Your task to perform on an android device: Search for the most popular coffee table on Crate & Barrel Image 0: 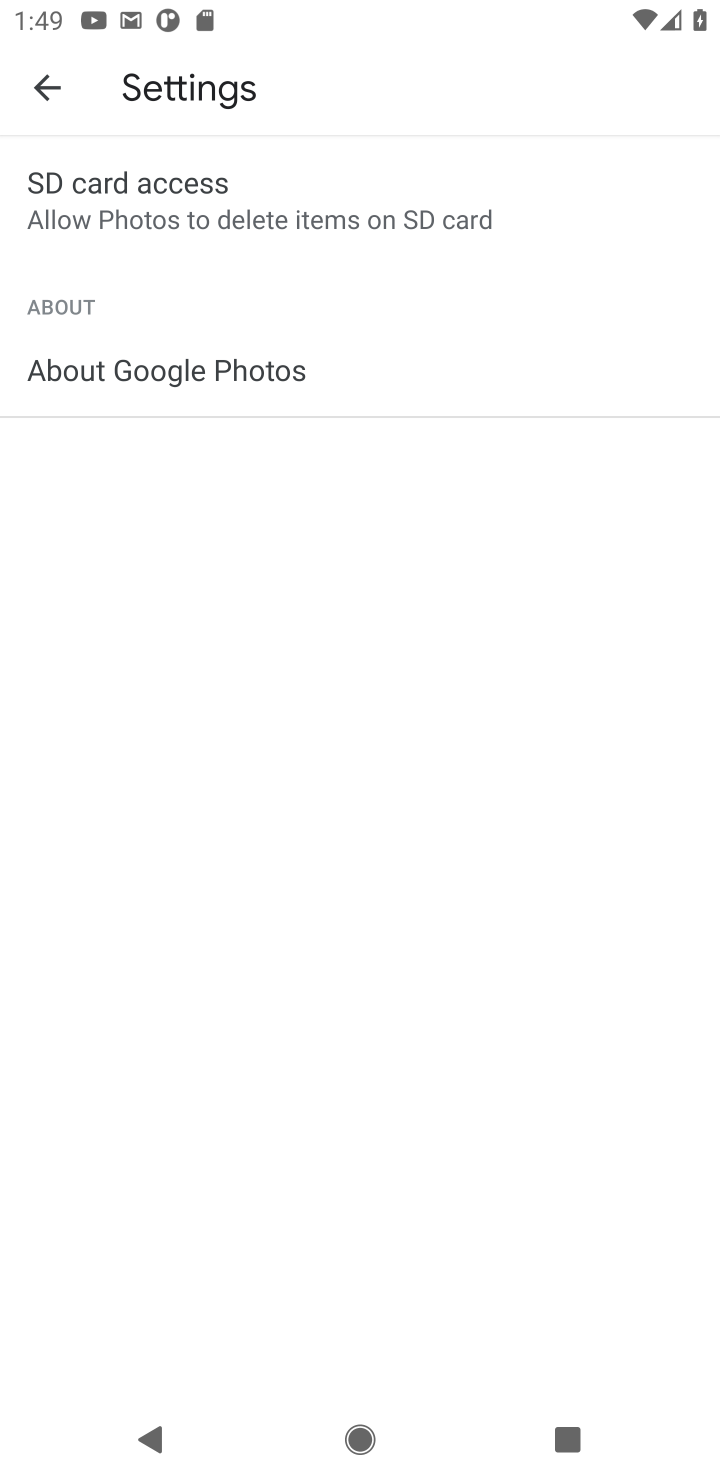
Step 0: click (381, 234)
Your task to perform on an android device: Search for the most popular coffee table on Crate & Barrel Image 1: 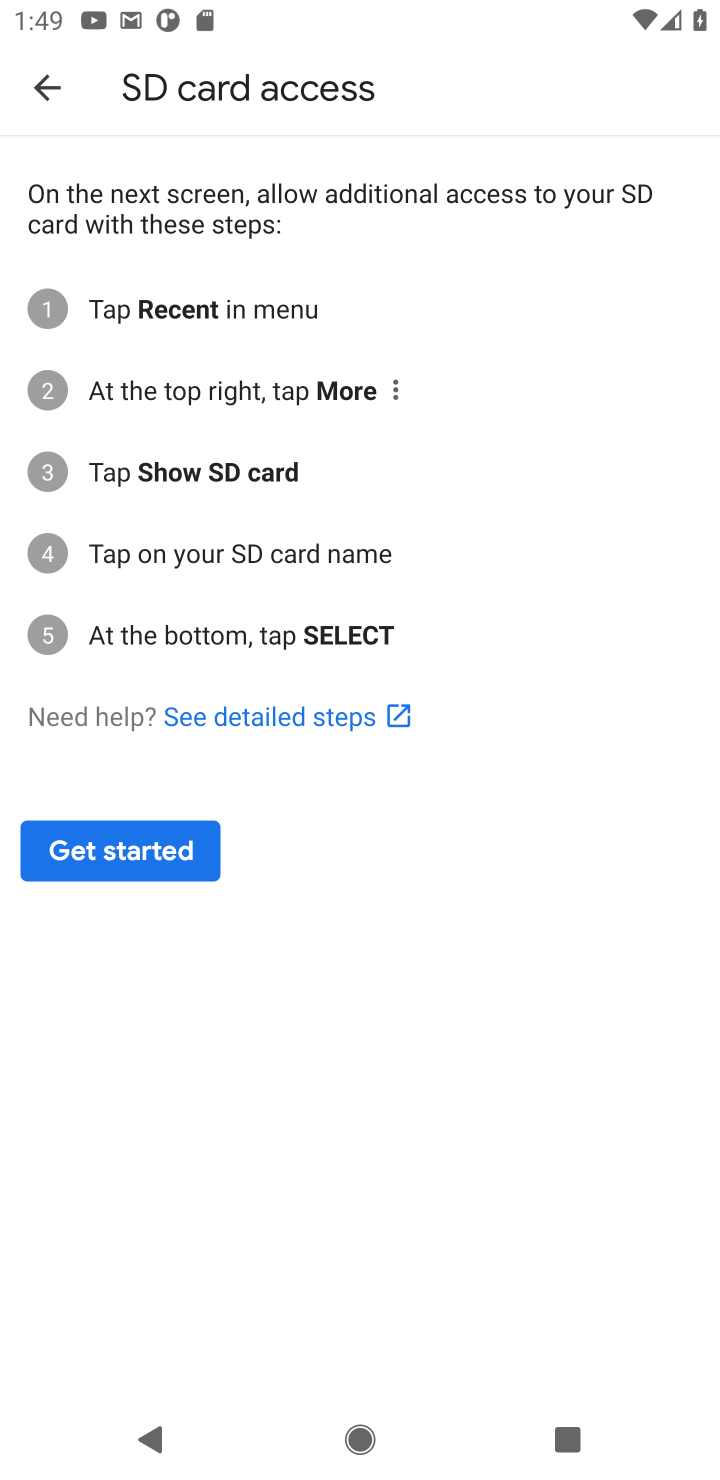
Step 1: task complete